Your task to perform on an android device: open the mobile data screen to see how much data has been used Image 0: 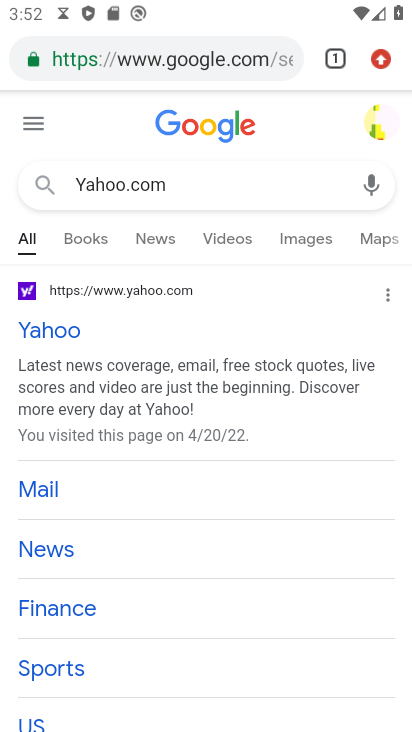
Step 0: press home button
Your task to perform on an android device: open the mobile data screen to see how much data has been used Image 1: 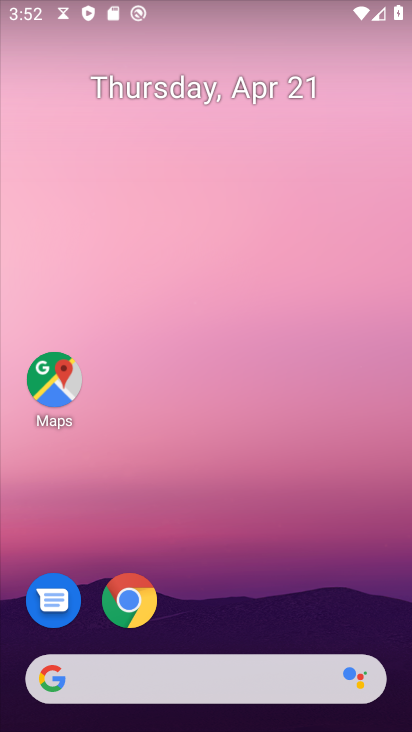
Step 1: drag from (219, 625) to (201, 253)
Your task to perform on an android device: open the mobile data screen to see how much data has been used Image 2: 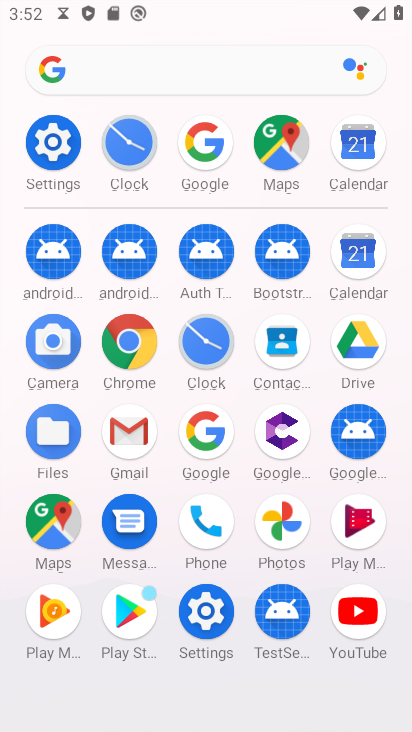
Step 2: click (51, 144)
Your task to perform on an android device: open the mobile data screen to see how much data has been used Image 3: 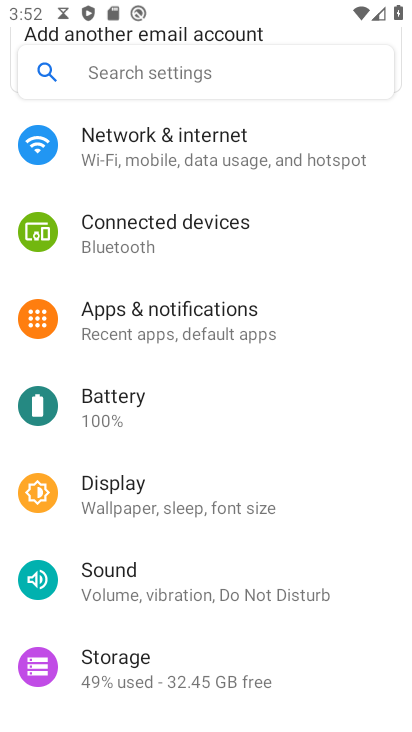
Step 3: click (202, 167)
Your task to perform on an android device: open the mobile data screen to see how much data has been used Image 4: 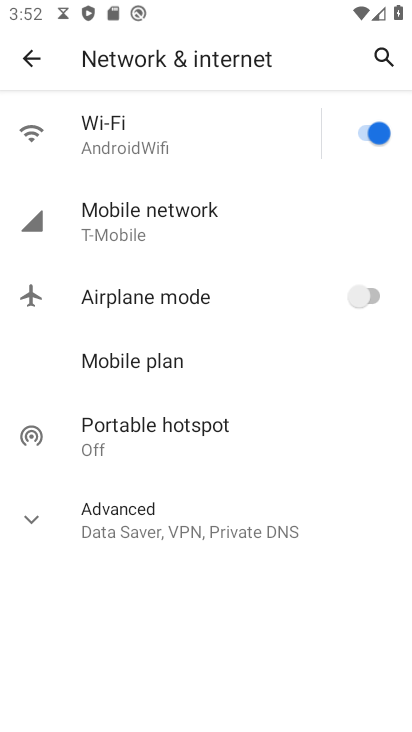
Step 4: click (162, 227)
Your task to perform on an android device: open the mobile data screen to see how much data has been used Image 5: 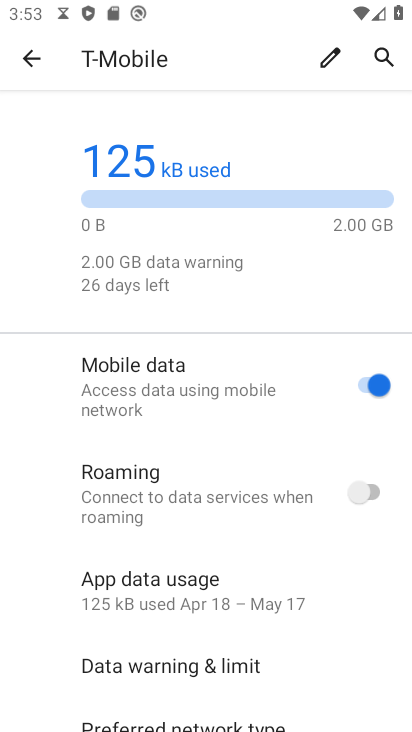
Step 5: task complete